Your task to perform on an android device: Go to internet settings Image 0: 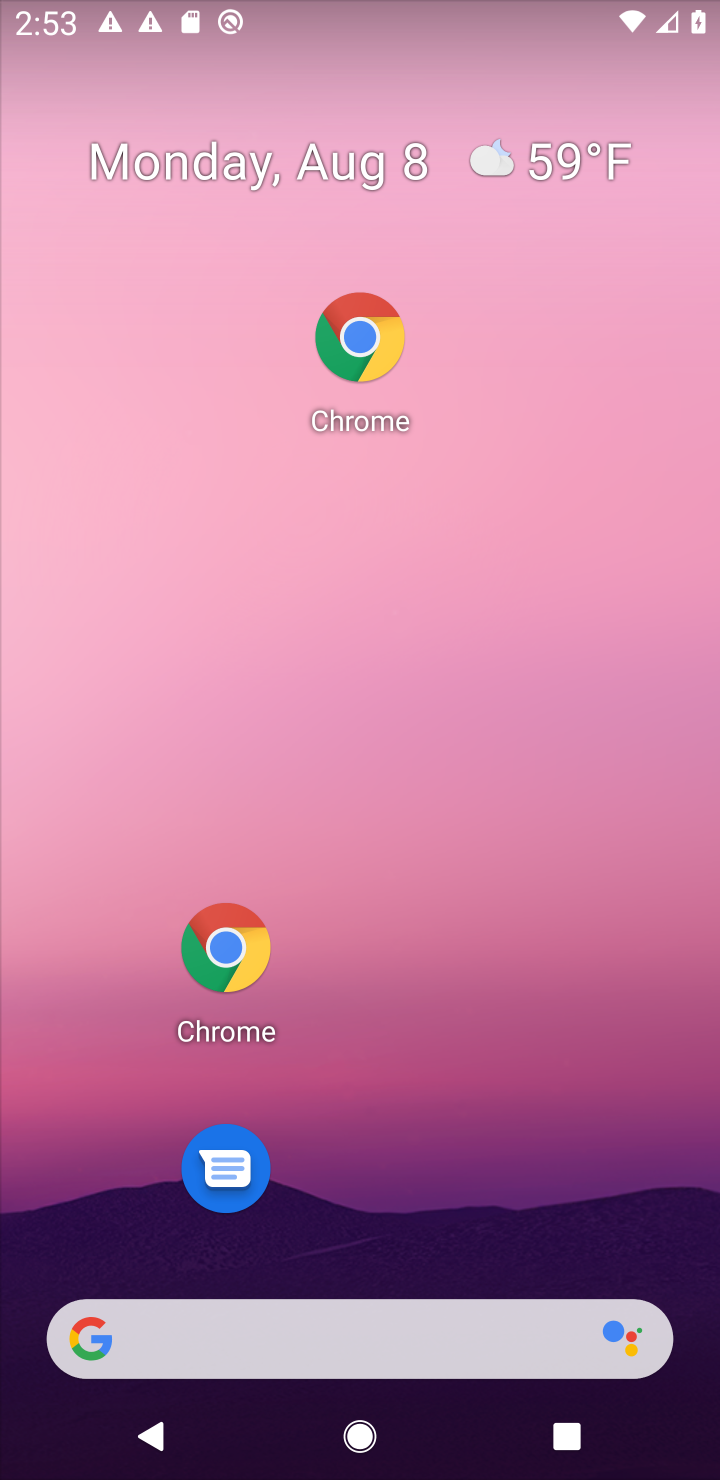
Step 0: drag from (506, 1274) to (501, 321)
Your task to perform on an android device: Go to internet settings Image 1: 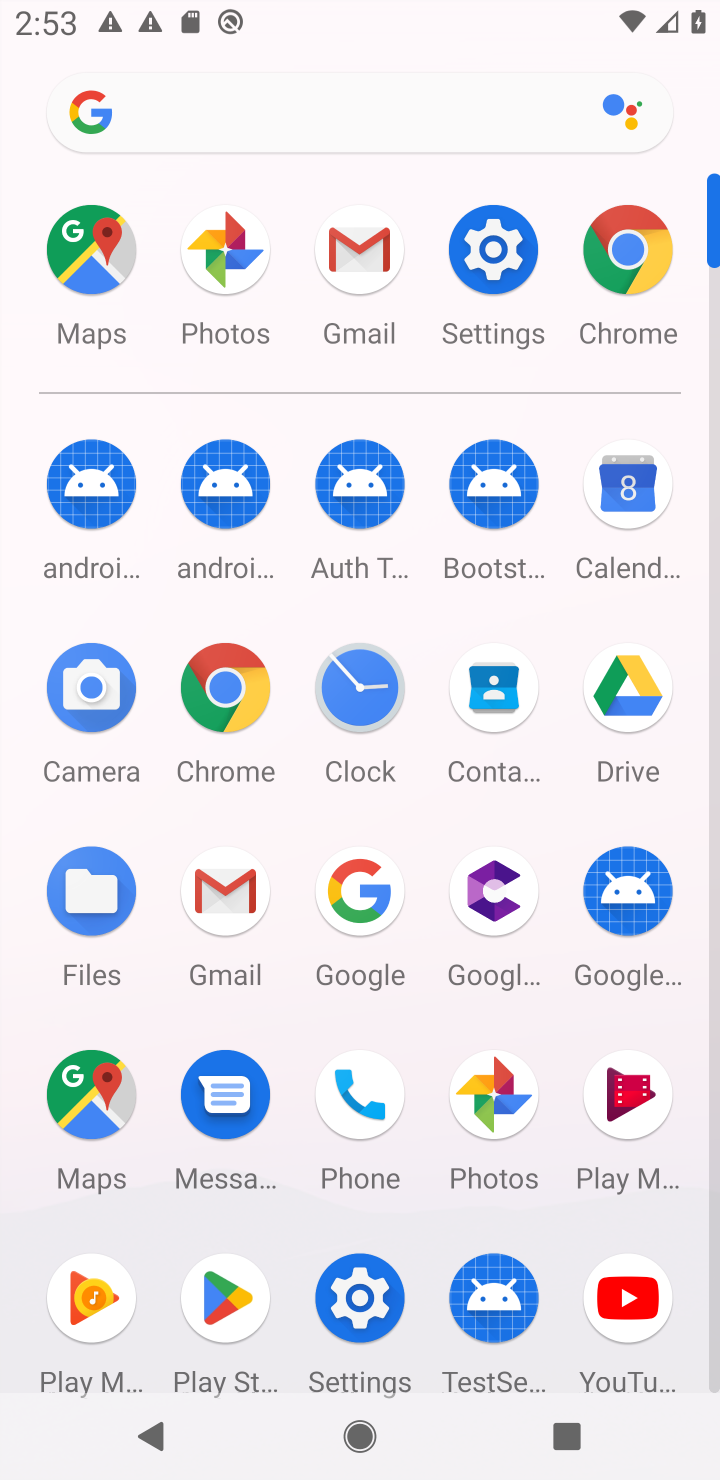
Step 1: click (501, 321)
Your task to perform on an android device: Go to internet settings Image 2: 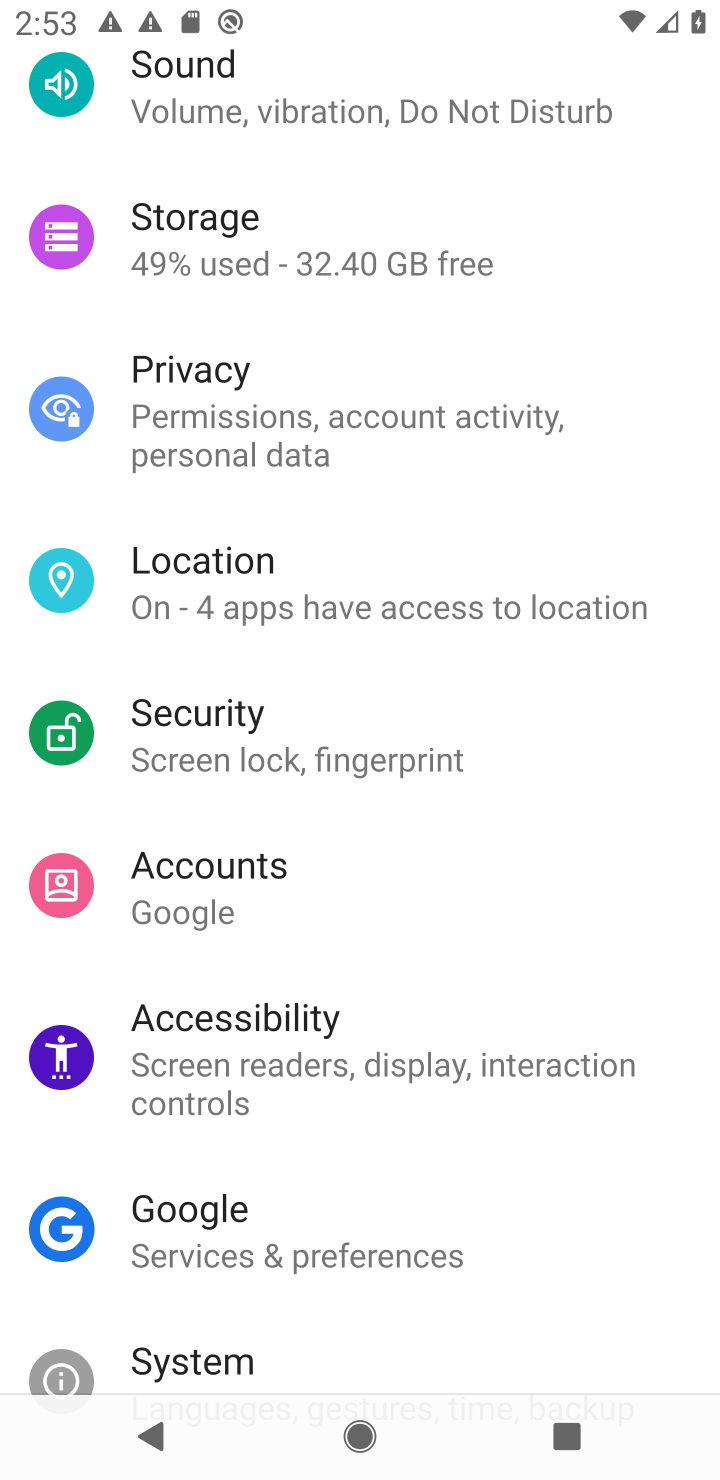
Step 2: drag from (395, 528) to (375, 1074)
Your task to perform on an android device: Go to internet settings Image 3: 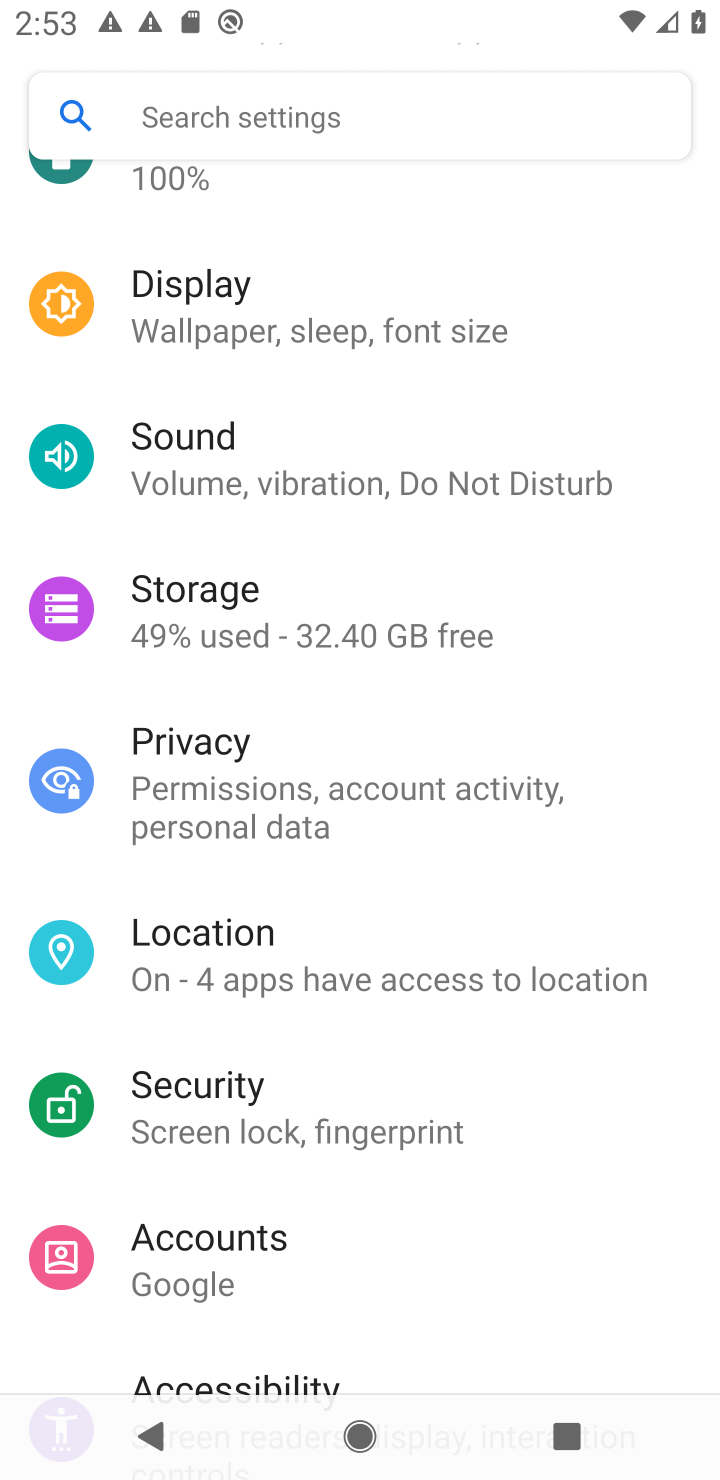
Step 3: drag from (338, 480) to (367, 1029)
Your task to perform on an android device: Go to internet settings Image 4: 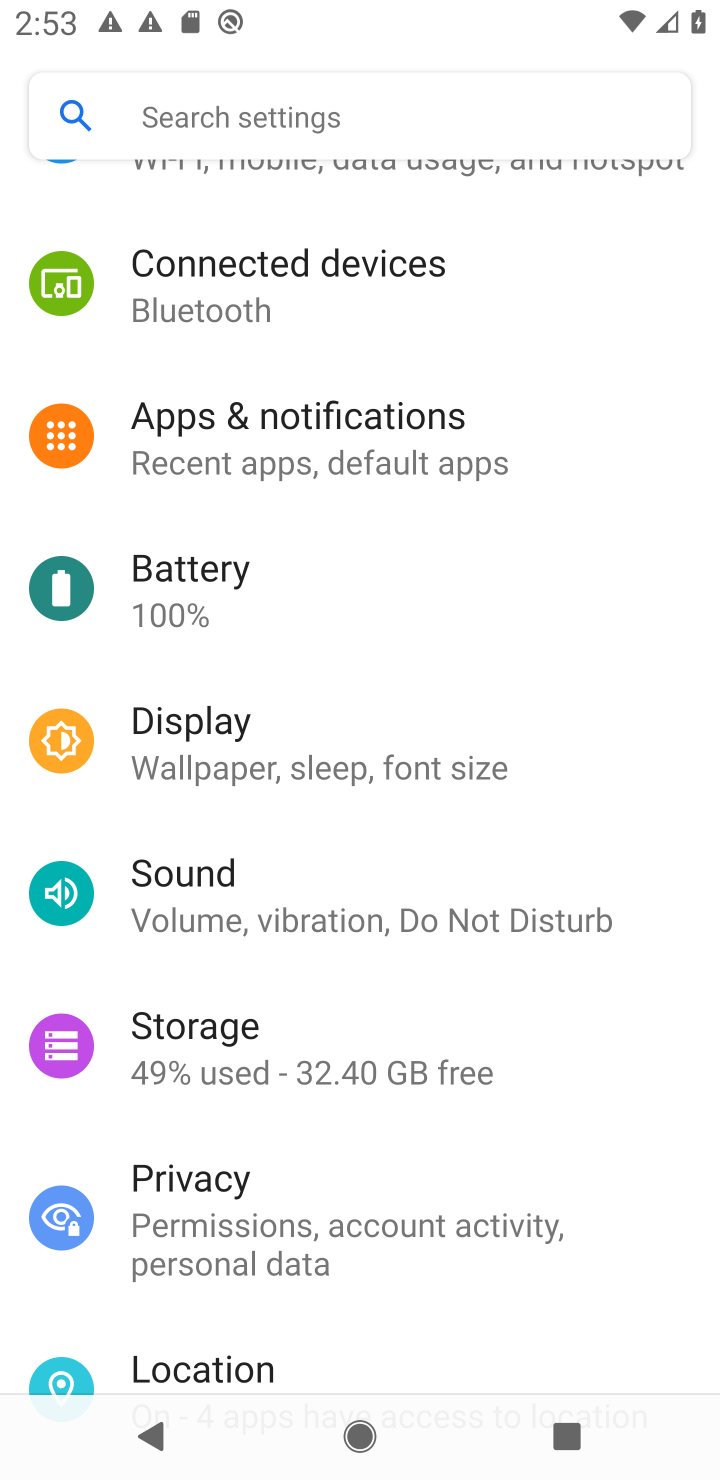
Step 4: click (397, 184)
Your task to perform on an android device: Go to internet settings Image 5: 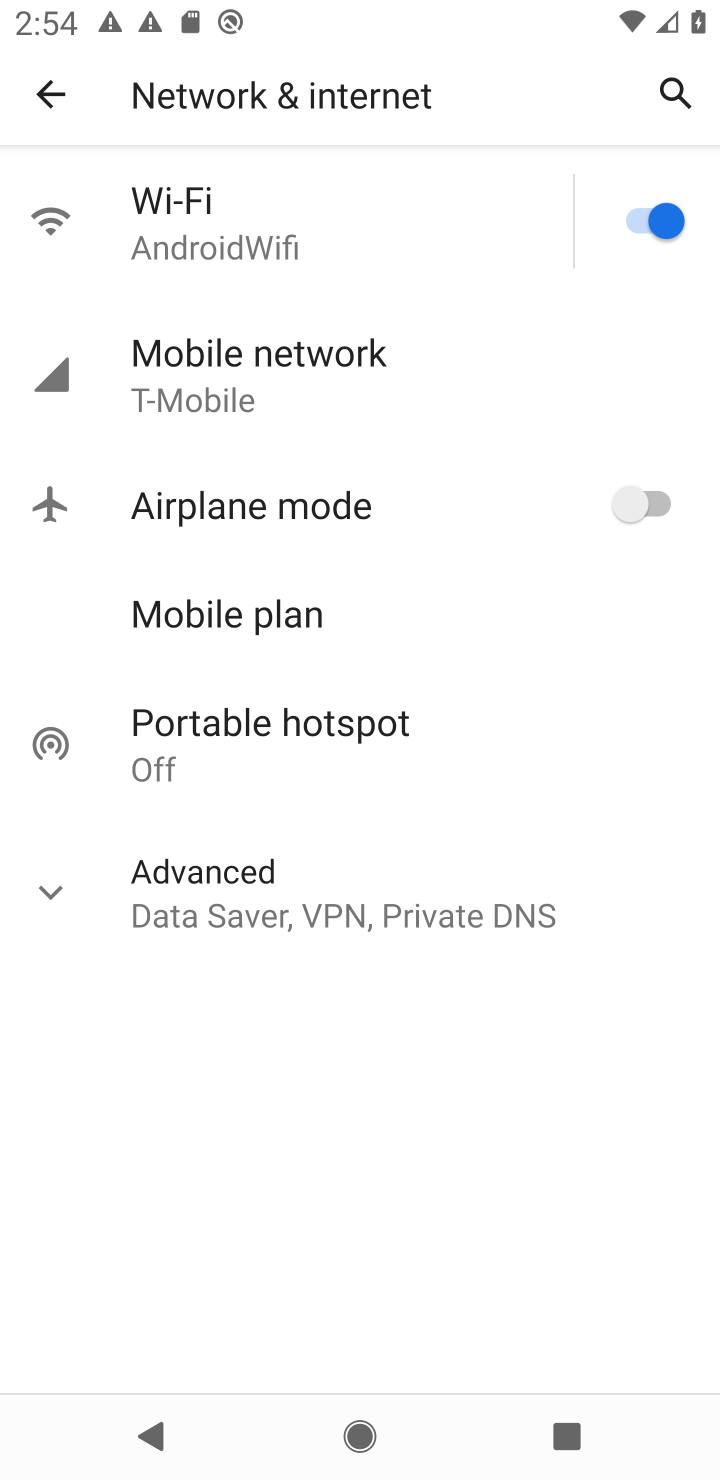
Step 5: task complete